Your task to perform on an android device: clear all cookies in the chrome app Image 0: 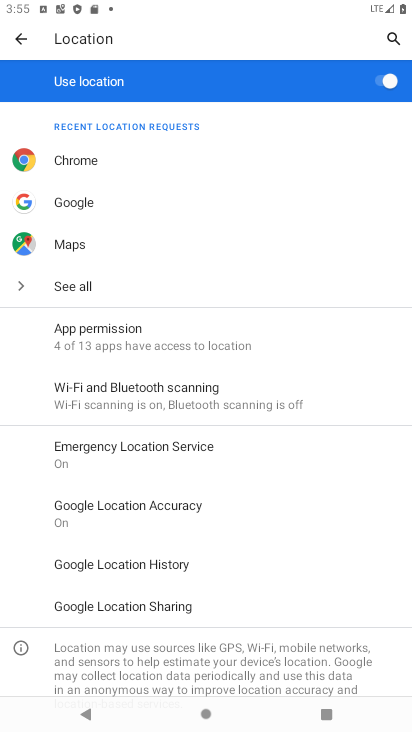
Step 0: press home button
Your task to perform on an android device: clear all cookies in the chrome app Image 1: 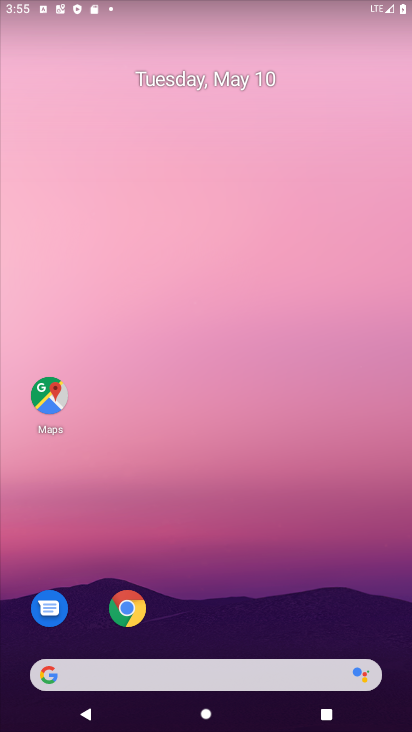
Step 1: click (130, 609)
Your task to perform on an android device: clear all cookies in the chrome app Image 2: 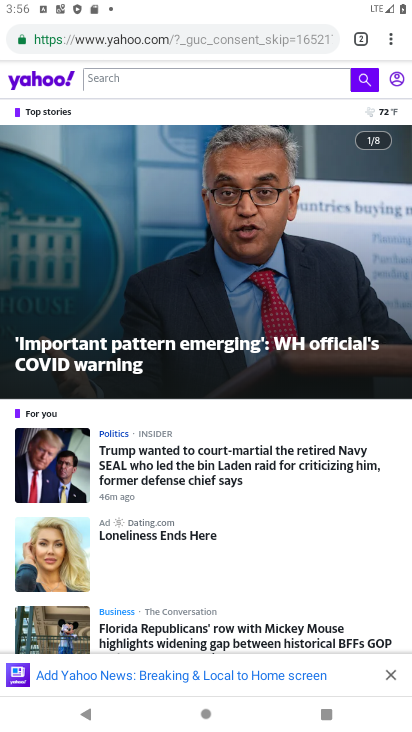
Step 2: click (387, 41)
Your task to perform on an android device: clear all cookies in the chrome app Image 3: 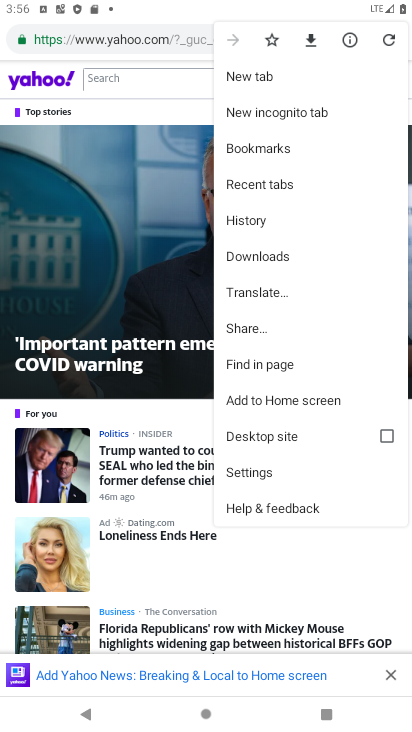
Step 3: click (240, 216)
Your task to perform on an android device: clear all cookies in the chrome app Image 4: 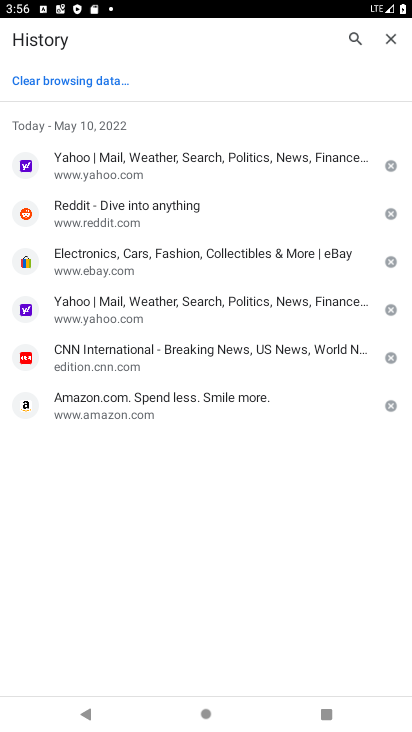
Step 4: click (41, 73)
Your task to perform on an android device: clear all cookies in the chrome app Image 5: 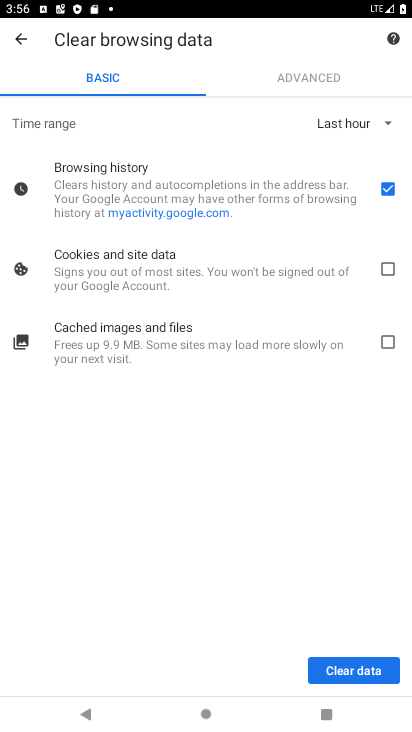
Step 5: click (387, 272)
Your task to perform on an android device: clear all cookies in the chrome app Image 6: 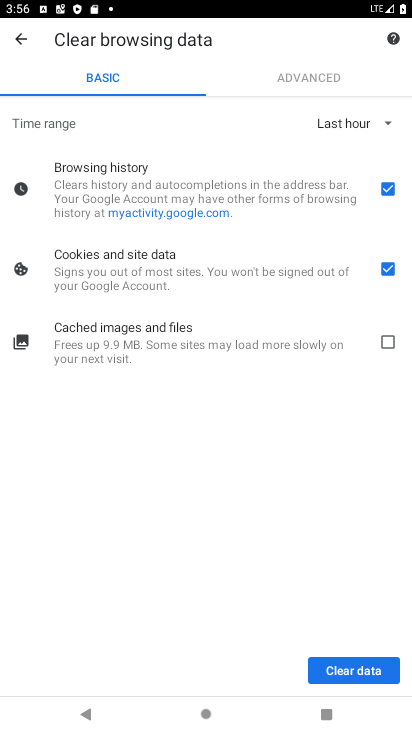
Step 6: click (385, 184)
Your task to perform on an android device: clear all cookies in the chrome app Image 7: 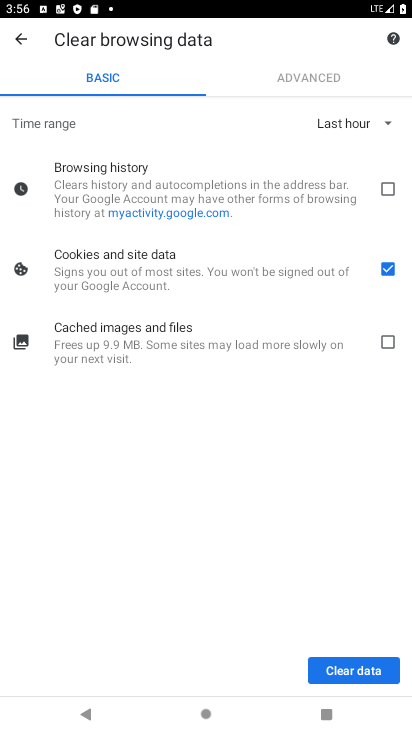
Step 7: click (353, 671)
Your task to perform on an android device: clear all cookies in the chrome app Image 8: 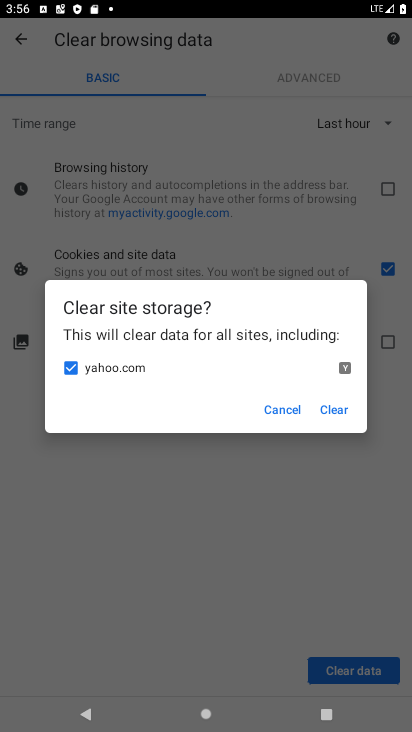
Step 8: click (332, 408)
Your task to perform on an android device: clear all cookies in the chrome app Image 9: 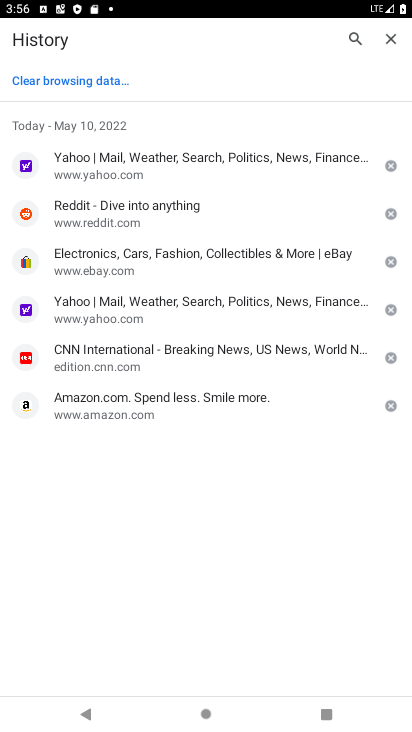
Step 9: task complete